Your task to perform on an android device: What's the weather going to be this weekend? Image 0: 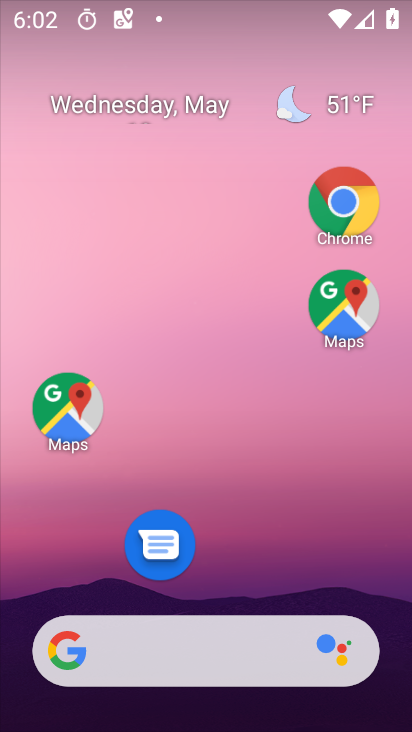
Step 0: click (184, 632)
Your task to perform on an android device: What's the weather going to be this weekend? Image 1: 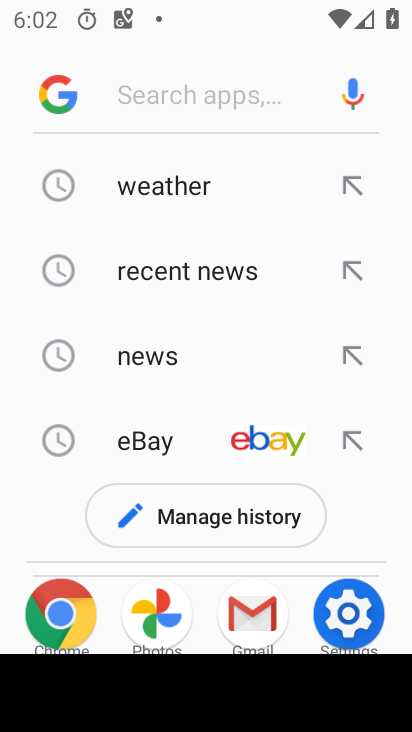
Step 1: click (146, 190)
Your task to perform on an android device: What's the weather going to be this weekend? Image 2: 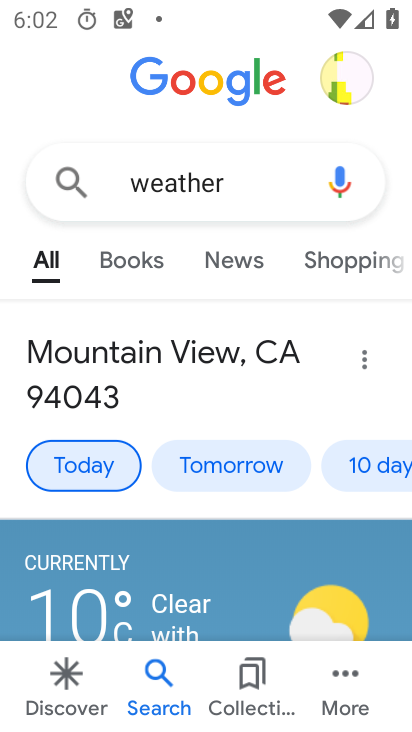
Step 2: click (365, 458)
Your task to perform on an android device: What's the weather going to be this weekend? Image 3: 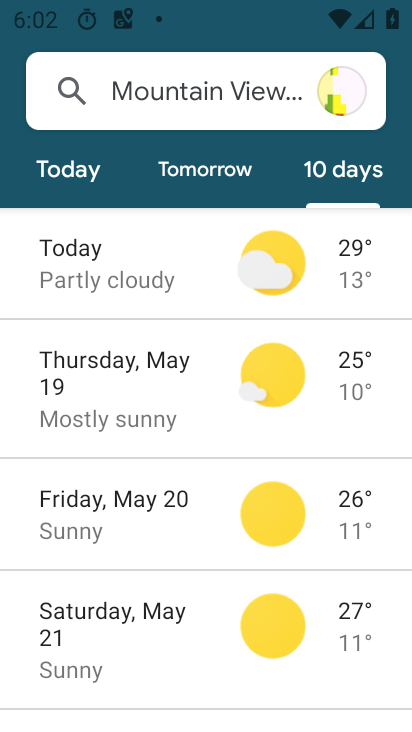
Step 3: task complete